Your task to perform on an android device: Go to Wikipedia Image 0: 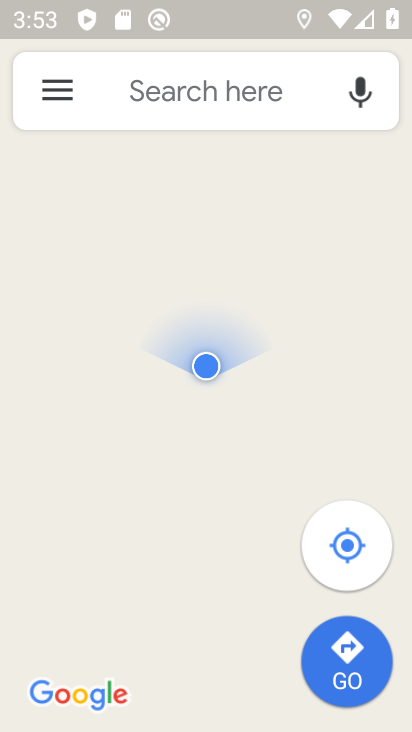
Step 0: press home button
Your task to perform on an android device: Go to Wikipedia Image 1: 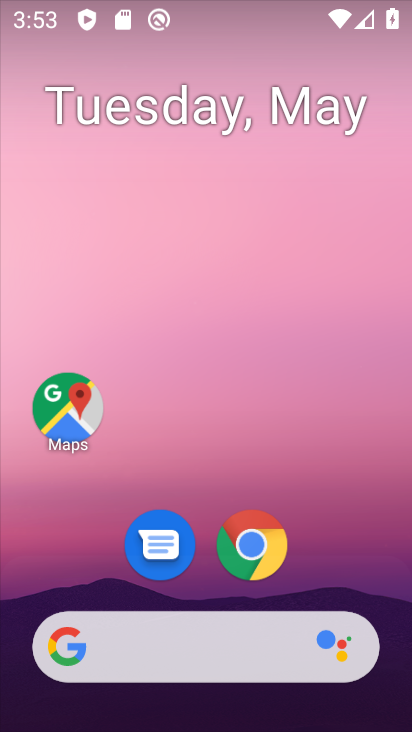
Step 1: click (249, 547)
Your task to perform on an android device: Go to Wikipedia Image 2: 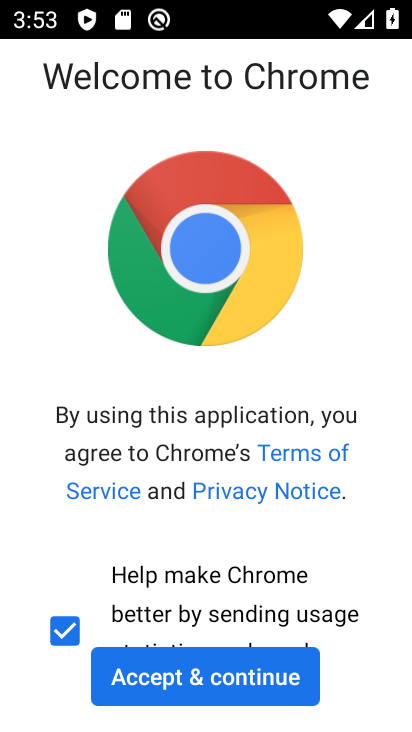
Step 2: click (189, 669)
Your task to perform on an android device: Go to Wikipedia Image 3: 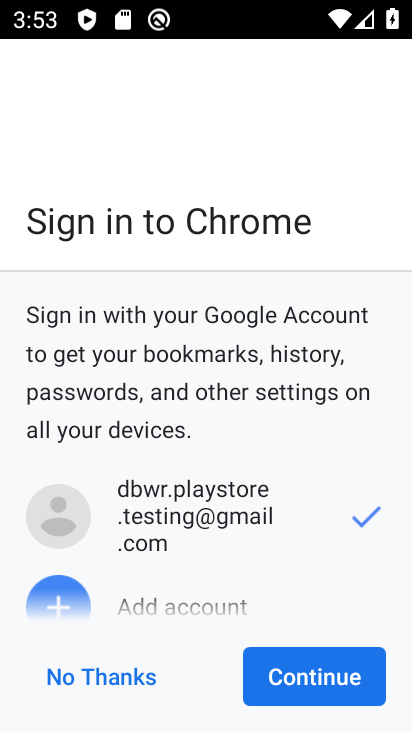
Step 3: click (316, 675)
Your task to perform on an android device: Go to Wikipedia Image 4: 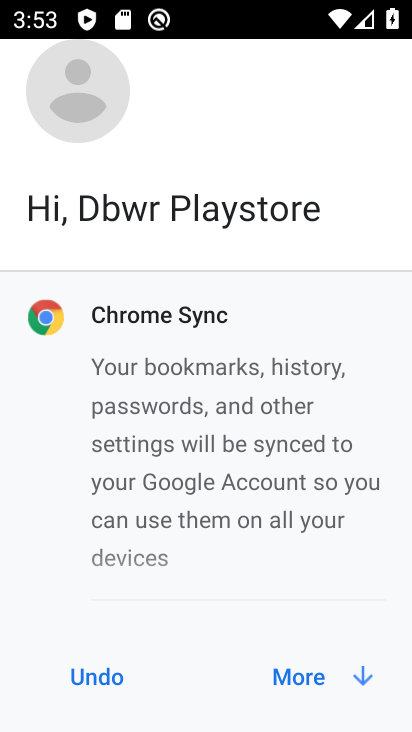
Step 4: click (309, 675)
Your task to perform on an android device: Go to Wikipedia Image 5: 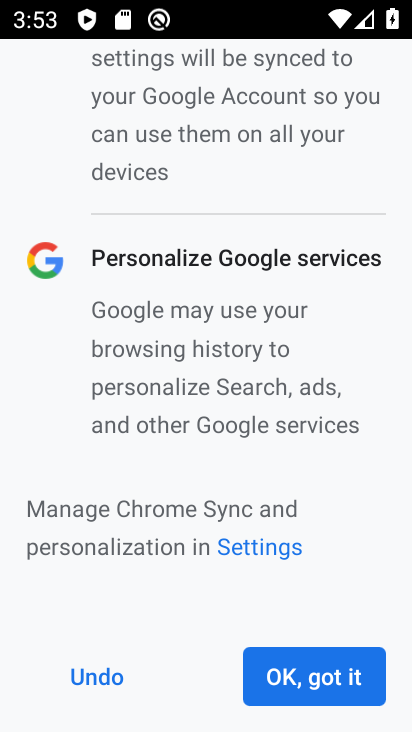
Step 5: click (309, 675)
Your task to perform on an android device: Go to Wikipedia Image 6: 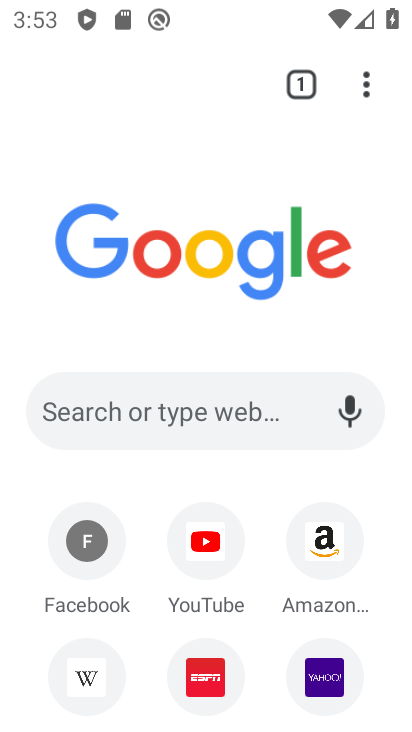
Step 6: click (86, 677)
Your task to perform on an android device: Go to Wikipedia Image 7: 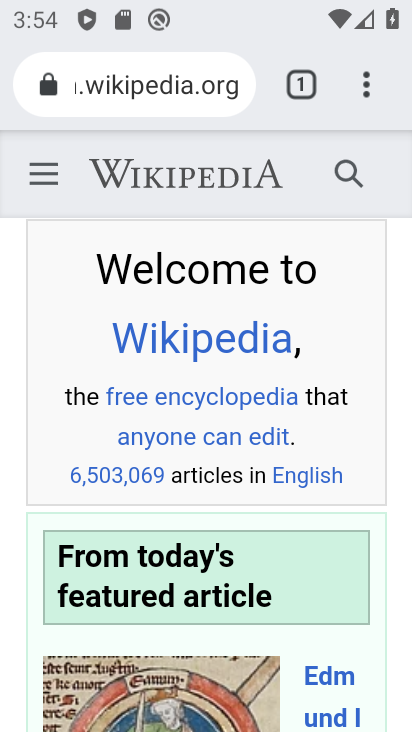
Step 7: task complete